Your task to perform on an android device: turn pop-ups on in chrome Image 0: 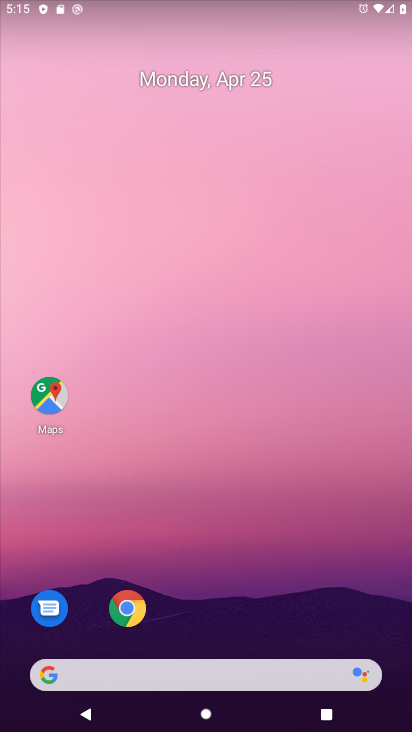
Step 0: drag from (225, 464) to (226, 149)
Your task to perform on an android device: turn pop-ups on in chrome Image 1: 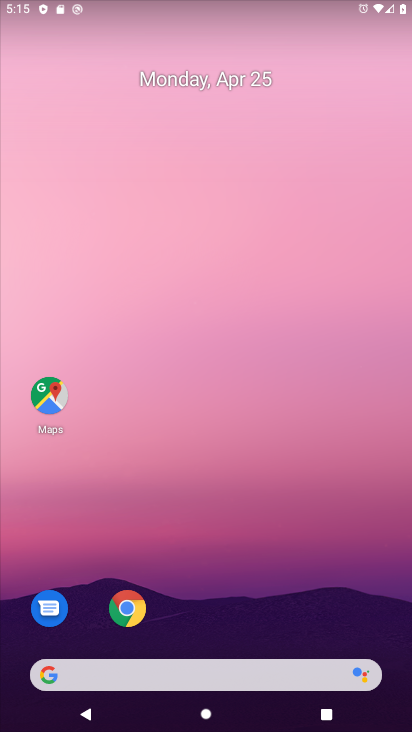
Step 1: drag from (367, 622) to (301, 5)
Your task to perform on an android device: turn pop-ups on in chrome Image 2: 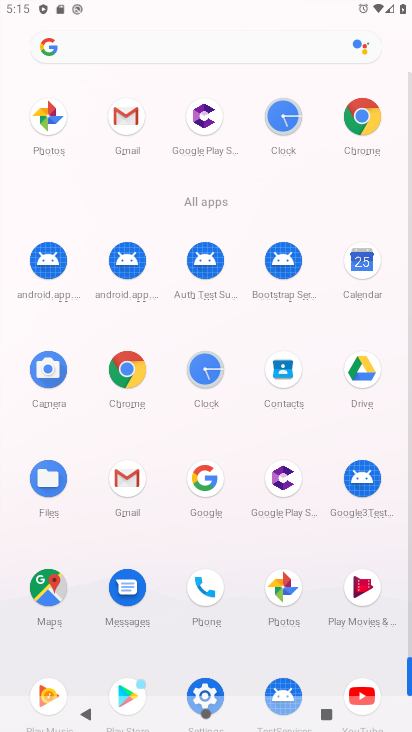
Step 2: drag from (4, 470) to (4, 222)
Your task to perform on an android device: turn pop-ups on in chrome Image 3: 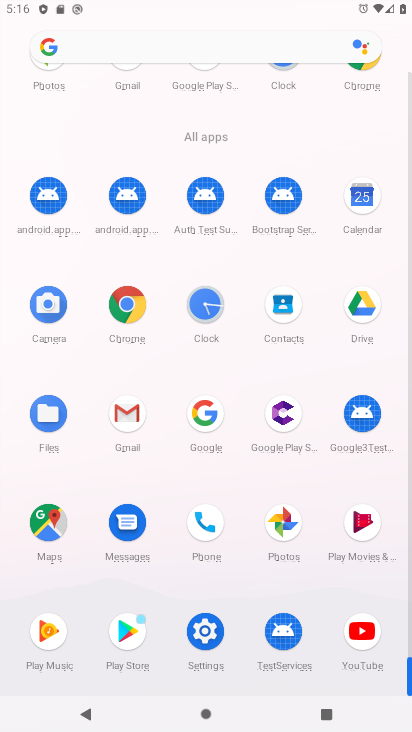
Step 3: click (122, 302)
Your task to perform on an android device: turn pop-ups on in chrome Image 4: 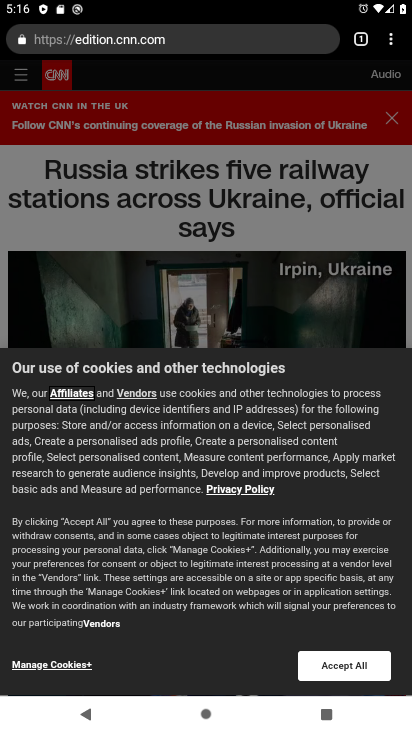
Step 4: drag from (392, 39) to (244, 479)
Your task to perform on an android device: turn pop-ups on in chrome Image 5: 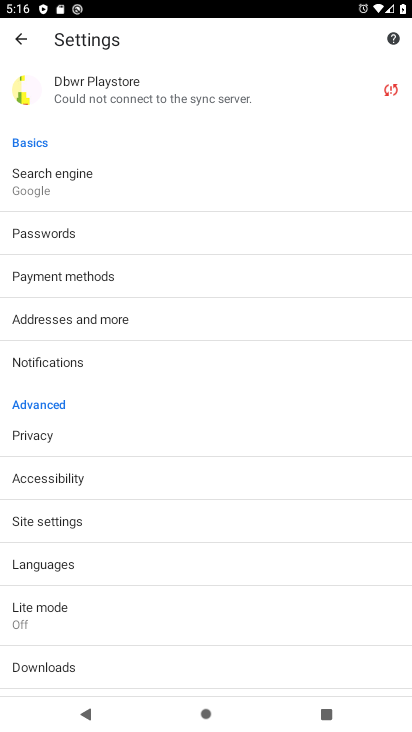
Step 5: drag from (207, 516) to (206, 206)
Your task to perform on an android device: turn pop-ups on in chrome Image 6: 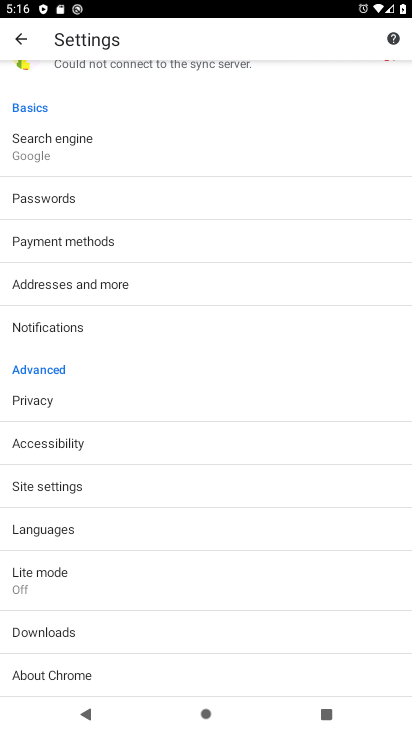
Step 6: click (83, 488)
Your task to perform on an android device: turn pop-ups on in chrome Image 7: 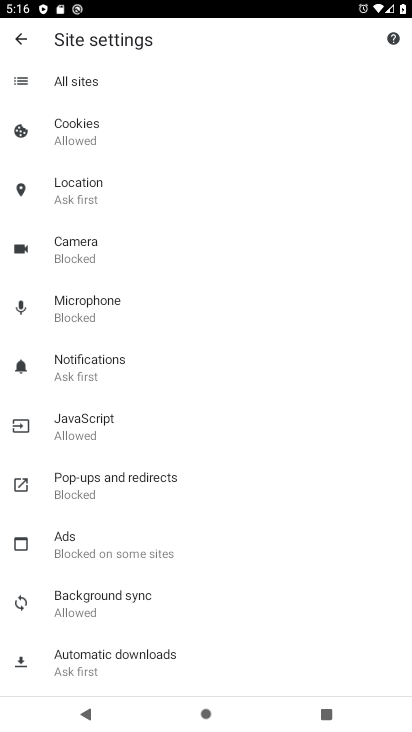
Step 7: drag from (241, 376) to (220, 146)
Your task to perform on an android device: turn pop-ups on in chrome Image 8: 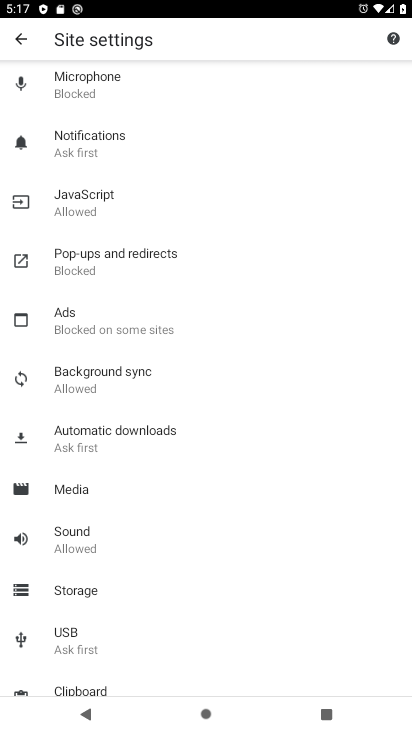
Step 8: click (142, 245)
Your task to perform on an android device: turn pop-ups on in chrome Image 9: 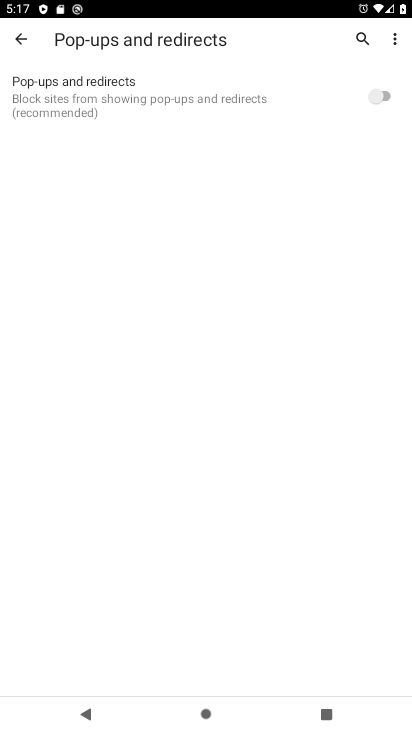
Step 9: click (386, 97)
Your task to perform on an android device: turn pop-ups on in chrome Image 10: 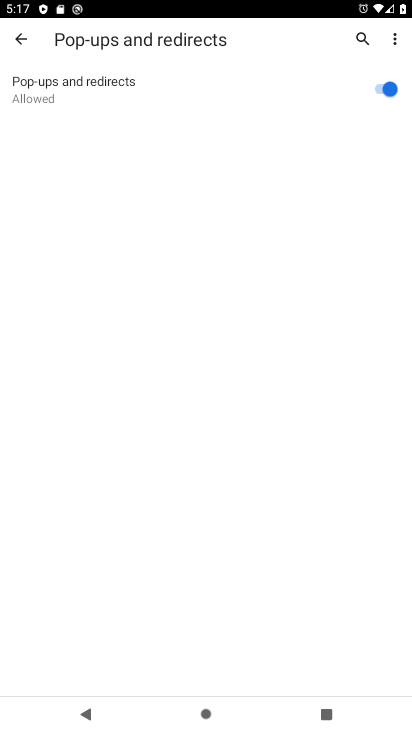
Step 10: task complete